Your task to perform on an android device: Go to eBay Image 0: 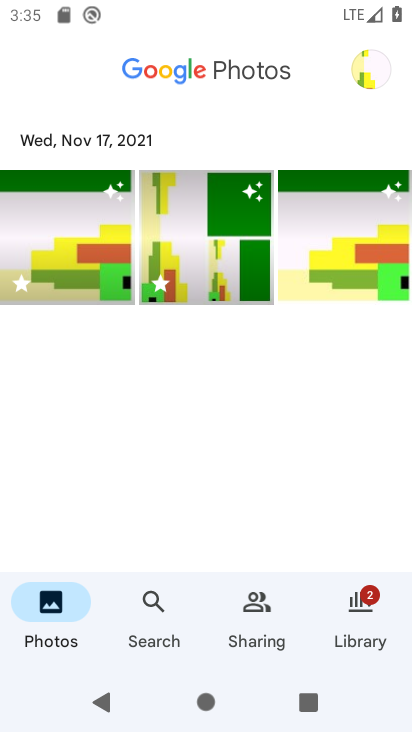
Step 0: press home button
Your task to perform on an android device: Go to eBay Image 1: 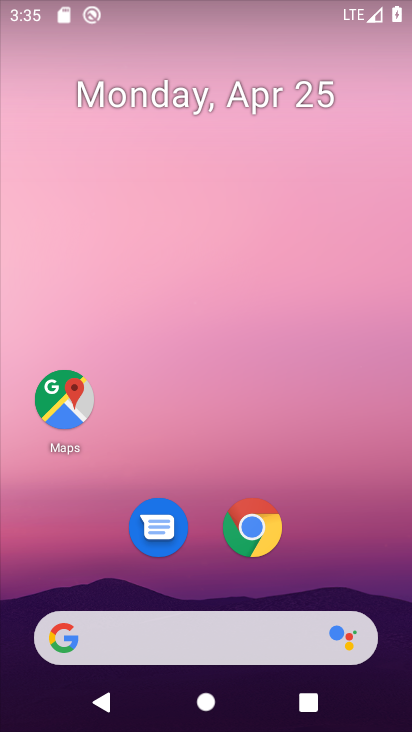
Step 1: click (253, 521)
Your task to perform on an android device: Go to eBay Image 2: 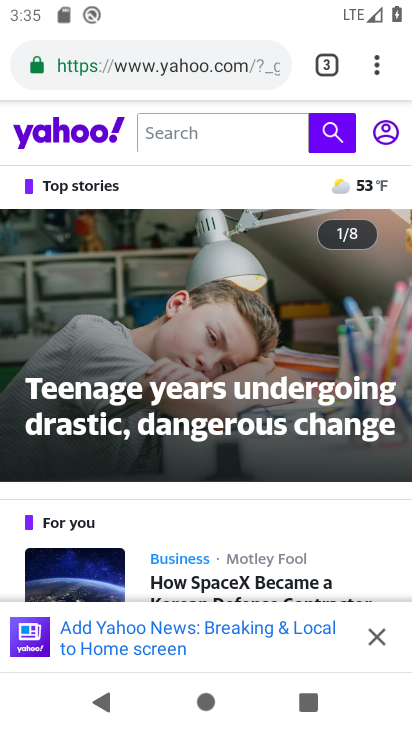
Step 2: press back button
Your task to perform on an android device: Go to eBay Image 3: 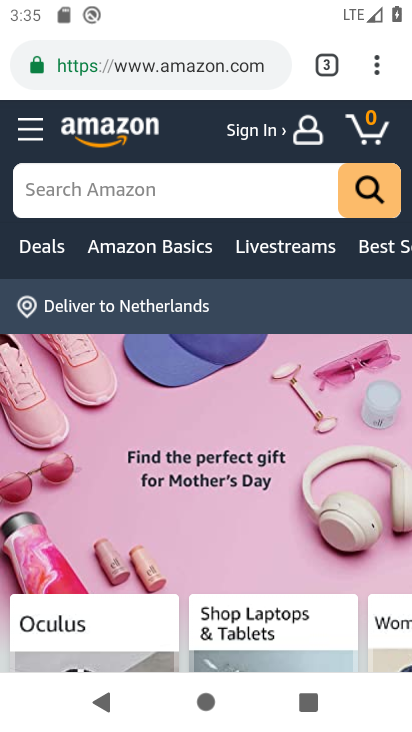
Step 3: press back button
Your task to perform on an android device: Go to eBay Image 4: 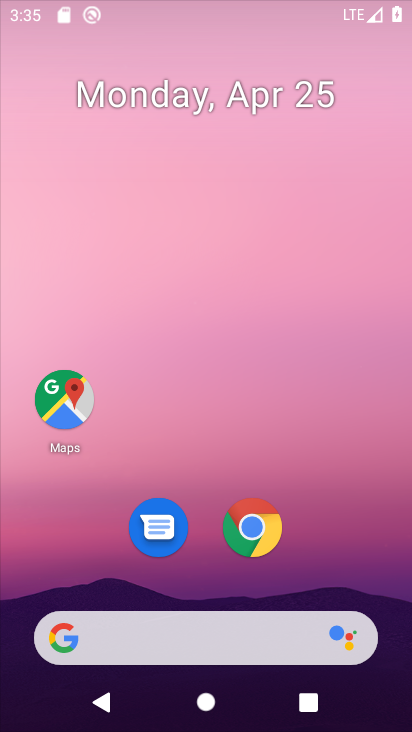
Step 4: press back button
Your task to perform on an android device: Go to eBay Image 5: 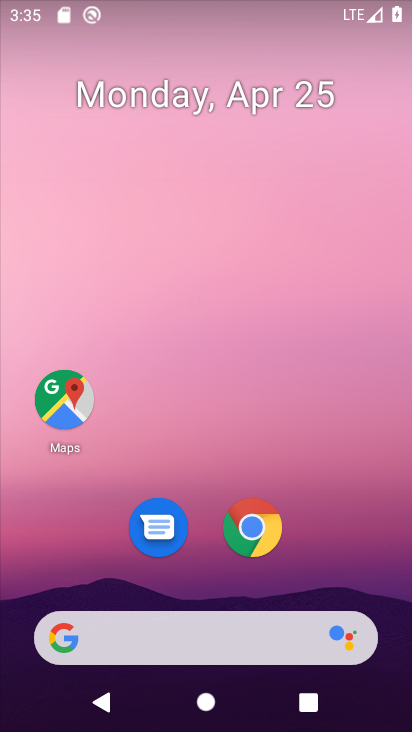
Step 5: click (247, 531)
Your task to perform on an android device: Go to eBay Image 6: 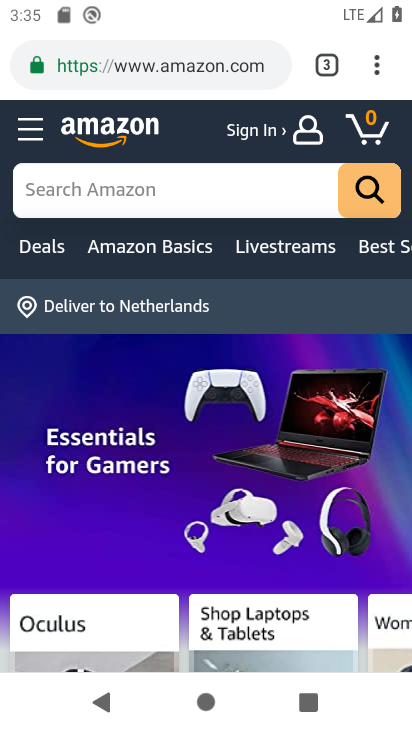
Step 6: click (170, 73)
Your task to perform on an android device: Go to eBay Image 7: 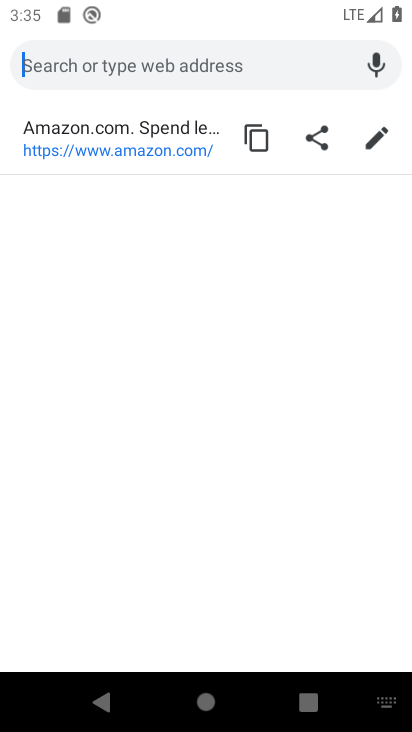
Step 7: type "ebay"
Your task to perform on an android device: Go to eBay Image 8: 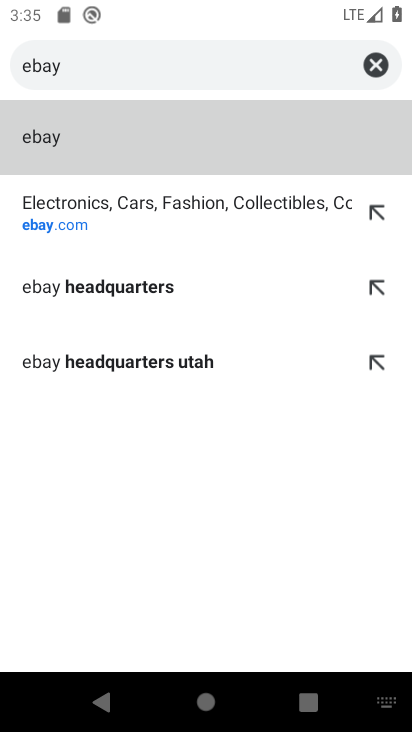
Step 8: click (64, 219)
Your task to perform on an android device: Go to eBay Image 9: 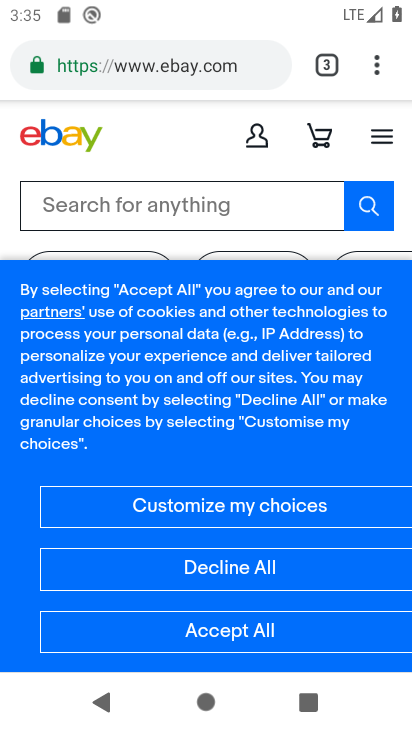
Step 9: task complete